Your task to perform on an android device: Go to calendar. Show me events next week Image 0: 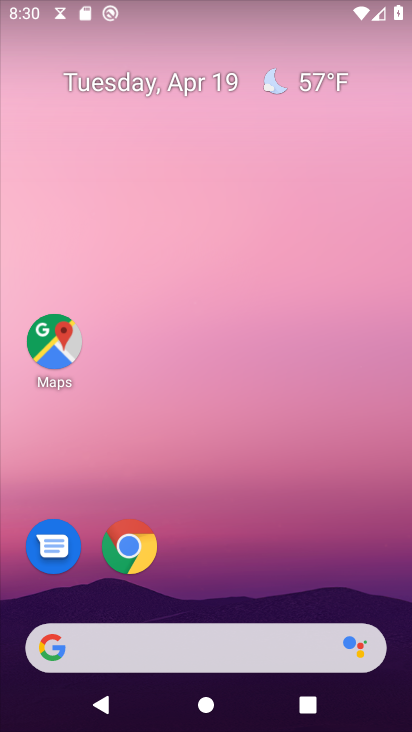
Step 0: drag from (245, 583) to (264, 2)
Your task to perform on an android device: Go to calendar. Show me events next week Image 1: 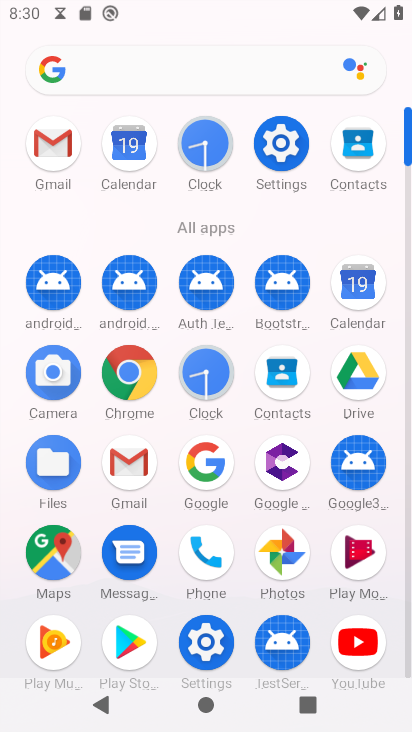
Step 1: click (356, 300)
Your task to perform on an android device: Go to calendar. Show me events next week Image 2: 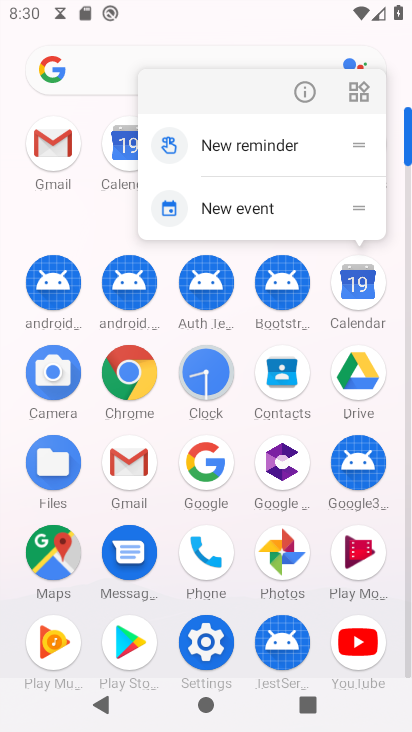
Step 2: click (361, 308)
Your task to perform on an android device: Go to calendar. Show me events next week Image 3: 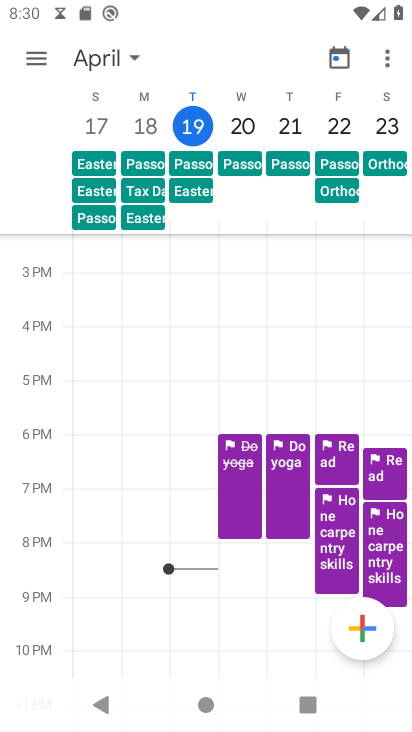
Step 3: click (27, 54)
Your task to perform on an android device: Go to calendar. Show me events next week Image 4: 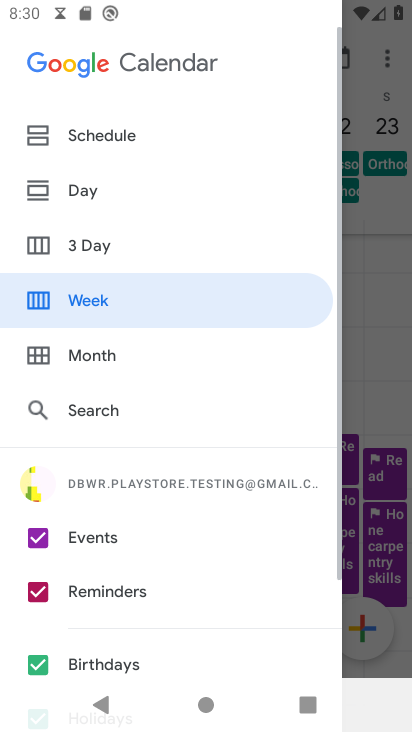
Step 4: click (55, 597)
Your task to perform on an android device: Go to calendar. Show me events next week Image 5: 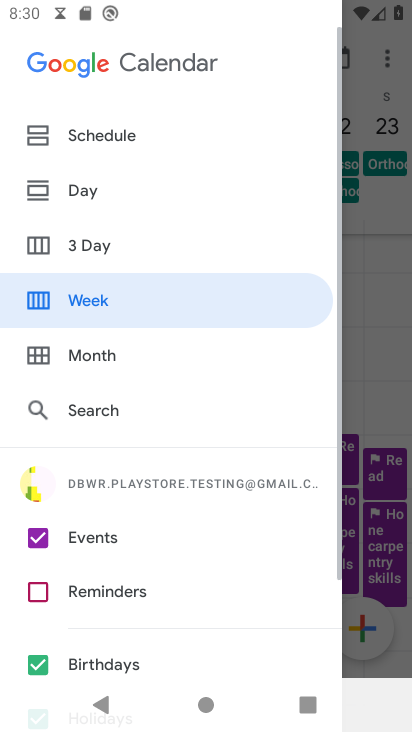
Step 5: click (37, 663)
Your task to perform on an android device: Go to calendar. Show me events next week Image 6: 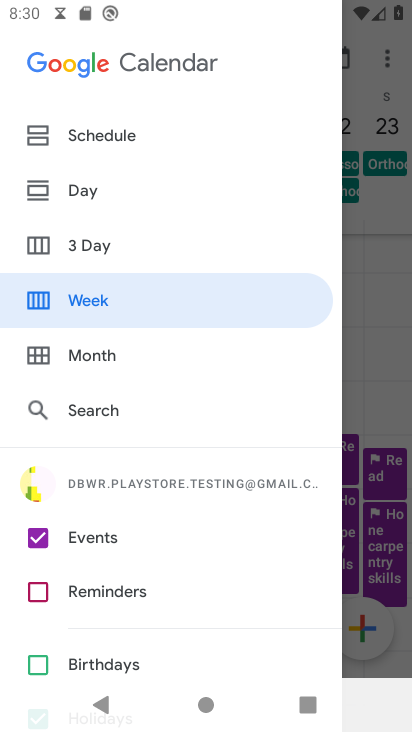
Step 6: drag from (155, 614) to (271, 53)
Your task to perform on an android device: Go to calendar. Show me events next week Image 7: 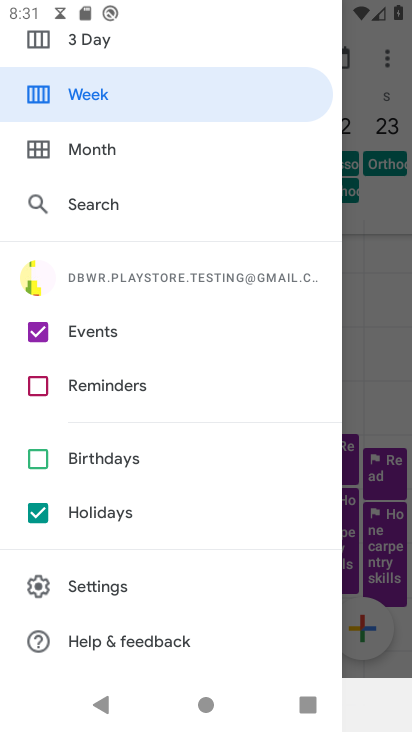
Step 7: click (109, 511)
Your task to perform on an android device: Go to calendar. Show me events next week Image 8: 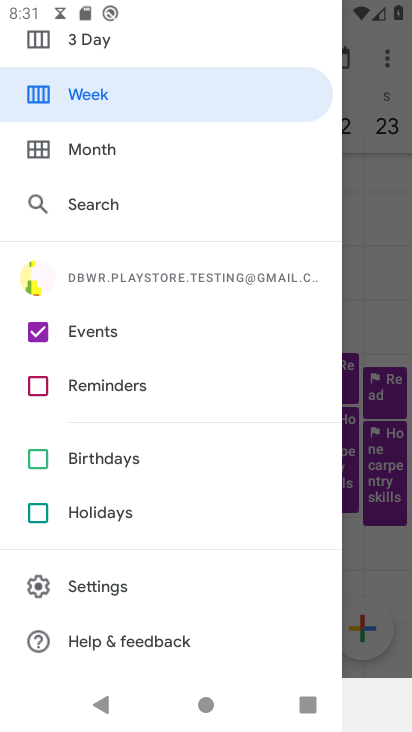
Step 8: click (158, 100)
Your task to perform on an android device: Go to calendar. Show me events next week Image 9: 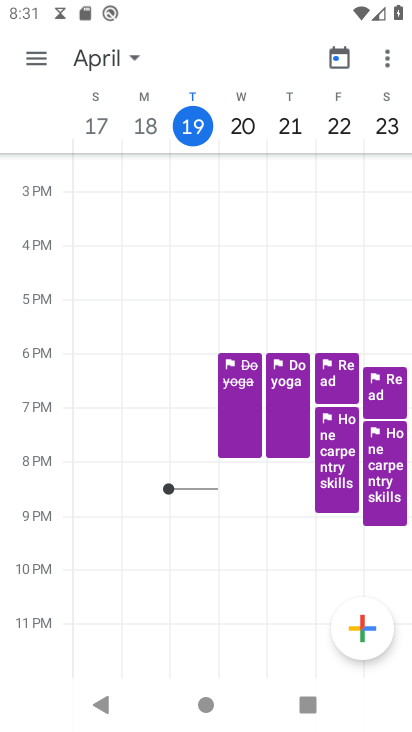
Step 9: task complete